Your task to perform on an android device: allow notifications from all sites in the chrome app Image 0: 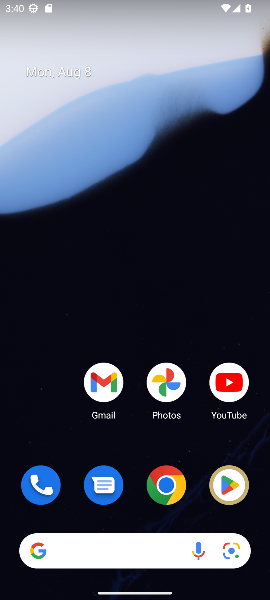
Step 0: drag from (135, 549) to (92, 134)
Your task to perform on an android device: allow notifications from all sites in the chrome app Image 1: 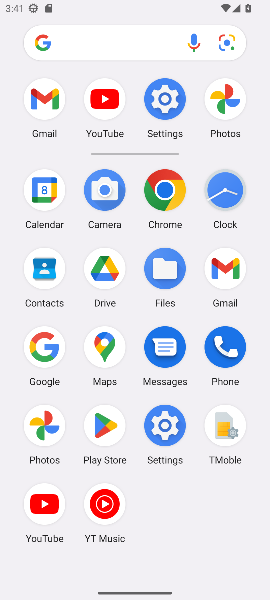
Step 1: click (168, 195)
Your task to perform on an android device: allow notifications from all sites in the chrome app Image 2: 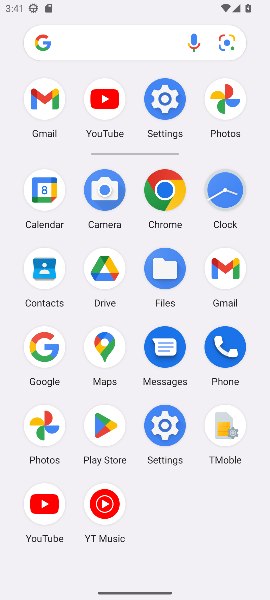
Step 2: click (168, 195)
Your task to perform on an android device: allow notifications from all sites in the chrome app Image 3: 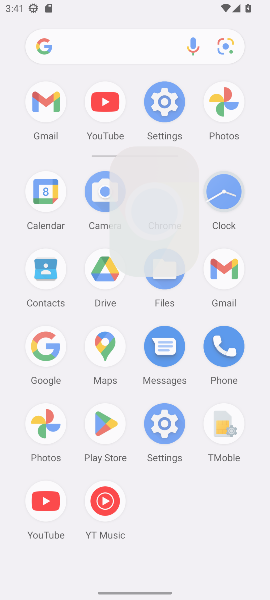
Step 3: click (169, 193)
Your task to perform on an android device: allow notifications from all sites in the chrome app Image 4: 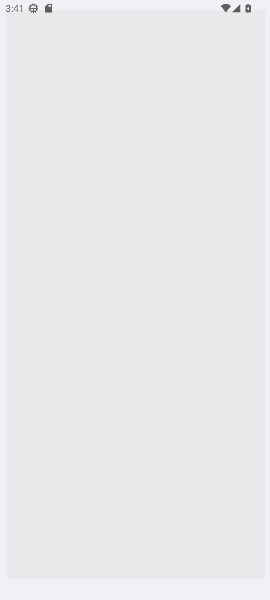
Step 4: click (170, 195)
Your task to perform on an android device: allow notifications from all sites in the chrome app Image 5: 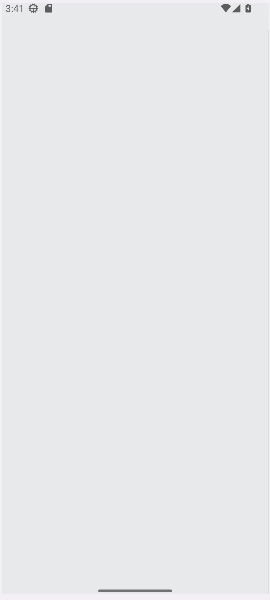
Step 5: click (170, 195)
Your task to perform on an android device: allow notifications from all sites in the chrome app Image 6: 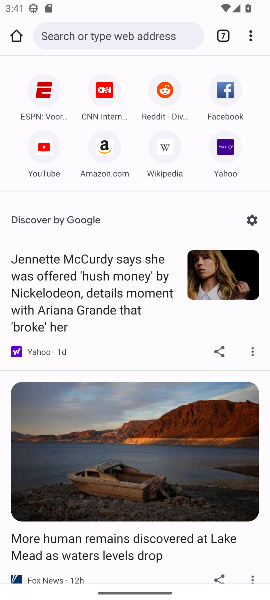
Step 6: click (254, 38)
Your task to perform on an android device: allow notifications from all sites in the chrome app Image 7: 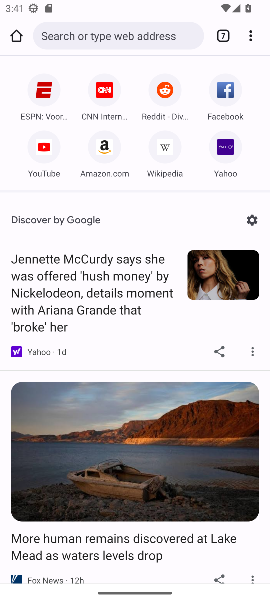
Step 7: drag from (248, 32) to (131, 331)
Your task to perform on an android device: allow notifications from all sites in the chrome app Image 8: 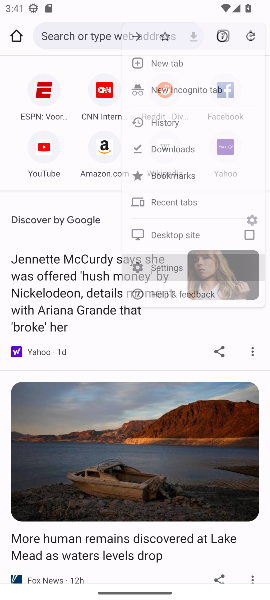
Step 8: click (137, 329)
Your task to perform on an android device: allow notifications from all sites in the chrome app Image 9: 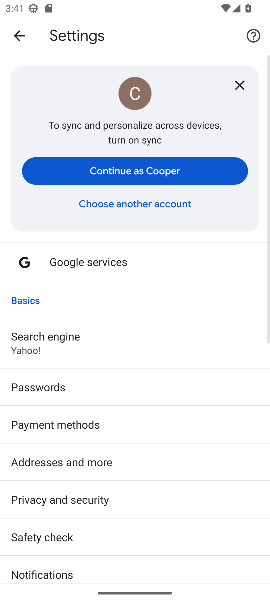
Step 9: drag from (103, 486) to (112, 234)
Your task to perform on an android device: allow notifications from all sites in the chrome app Image 10: 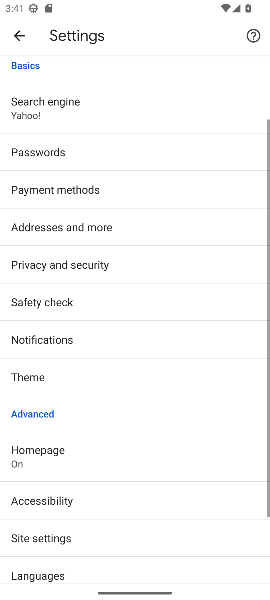
Step 10: drag from (162, 451) to (153, 136)
Your task to perform on an android device: allow notifications from all sites in the chrome app Image 11: 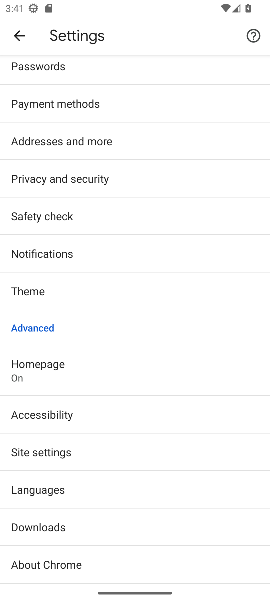
Step 11: drag from (72, 167) to (94, 560)
Your task to perform on an android device: allow notifications from all sites in the chrome app Image 12: 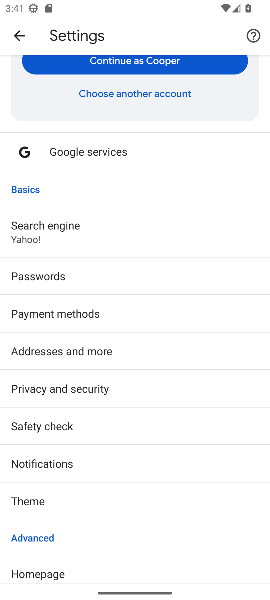
Step 12: drag from (81, 424) to (88, 101)
Your task to perform on an android device: allow notifications from all sites in the chrome app Image 13: 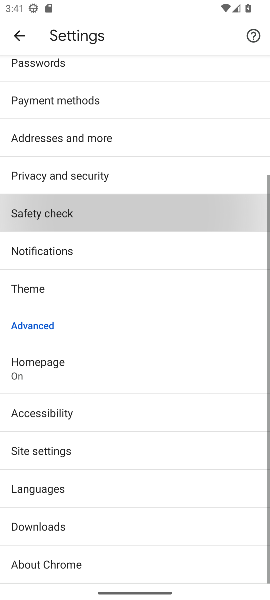
Step 13: drag from (188, 298) to (177, 108)
Your task to perform on an android device: allow notifications from all sites in the chrome app Image 14: 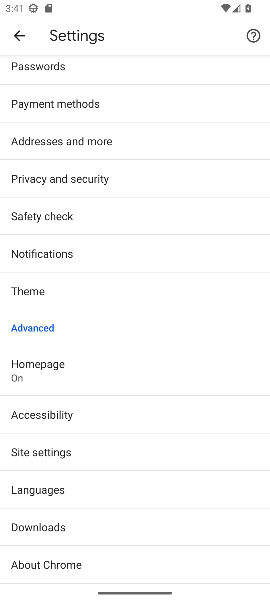
Step 14: click (52, 263)
Your task to perform on an android device: allow notifications from all sites in the chrome app Image 15: 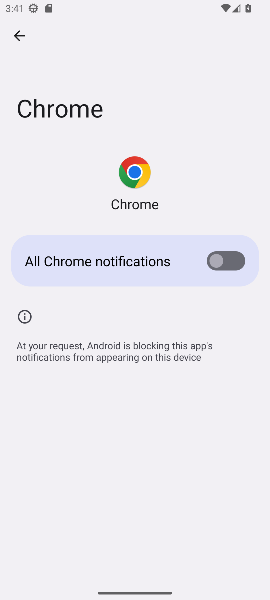
Step 15: click (20, 40)
Your task to perform on an android device: allow notifications from all sites in the chrome app Image 16: 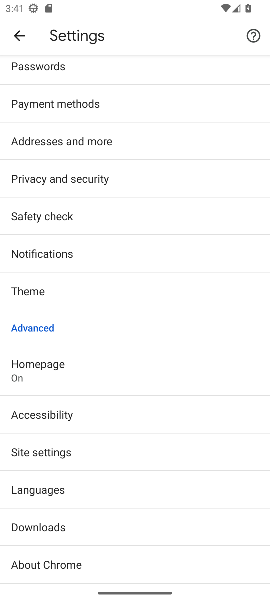
Step 16: click (43, 246)
Your task to perform on an android device: allow notifications from all sites in the chrome app Image 17: 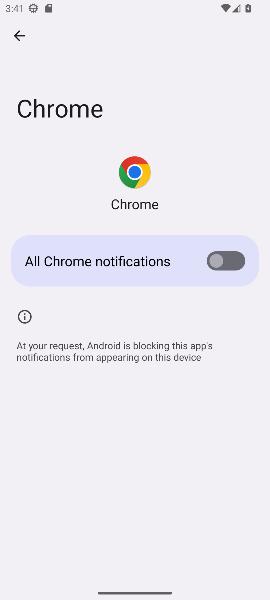
Step 17: click (219, 252)
Your task to perform on an android device: allow notifications from all sites in the chrome app Image 18: 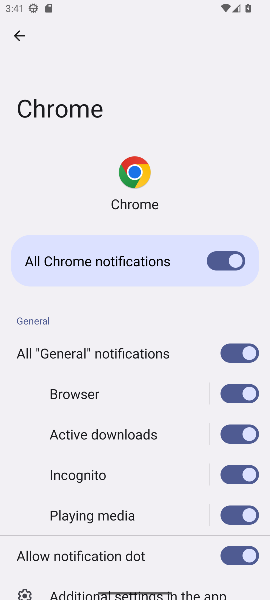
Step 18: task complete